Your task to perform on an android device: Open Google Image 0: 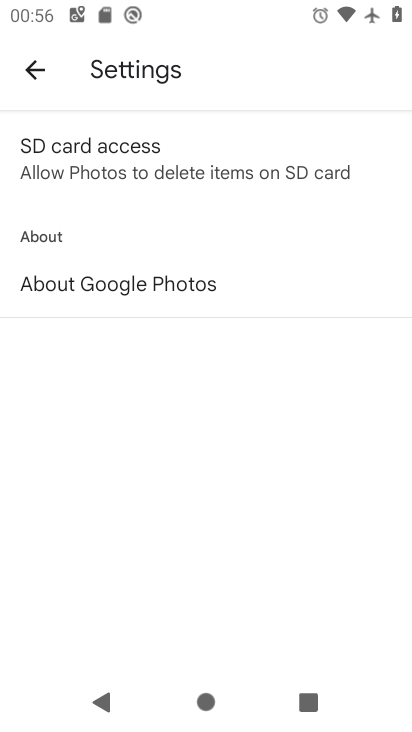
Step 0: press home button
Your task to perform on an android device: Open Google Image 1: 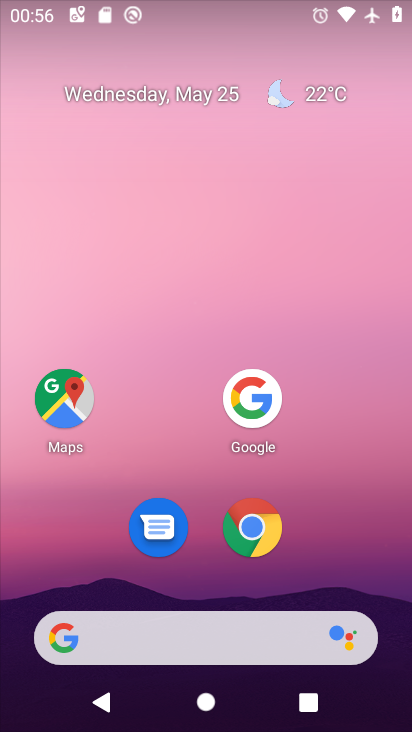
Step 1: click (54, 394)
Your task to perform on an android device: Open Google Image 2: 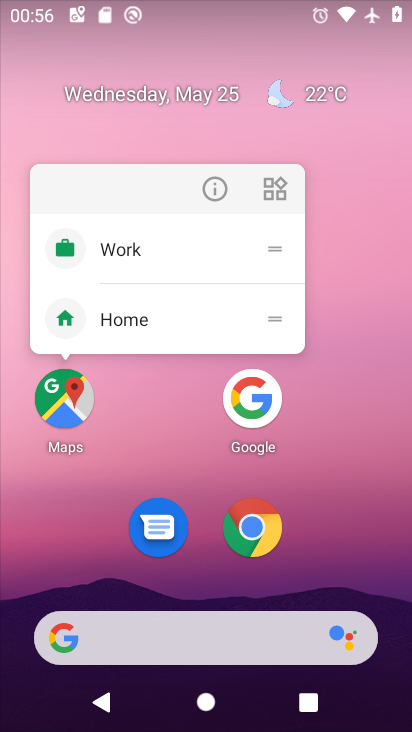
Step 2: click (268, 399)
Your task to perform on an android device: Open Google Image 3: 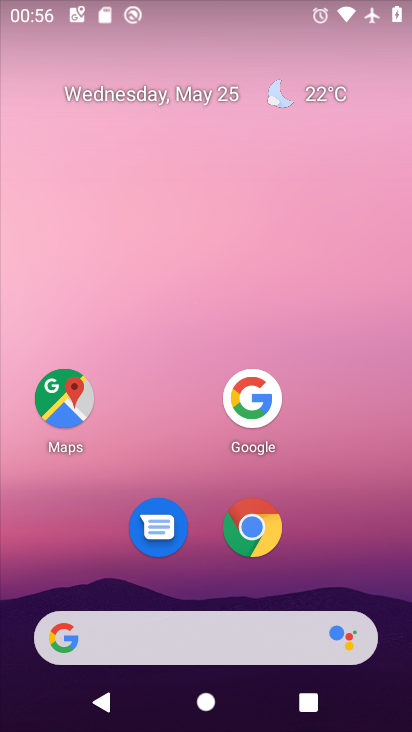
Step 3: click (262, 399)
Your task to perform on an android device: Open Google Image 4: 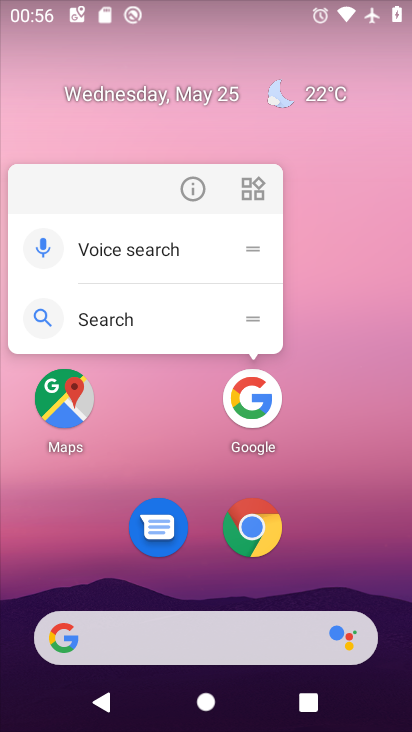
Step 4: click (259, 403)
Your task to perform on an android device: Open Google Image 5: 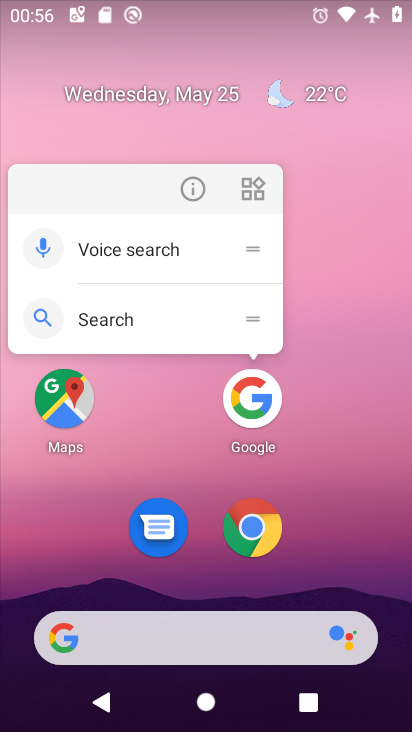
Step 5: click (259, 402)
Your task to perform on an android device: Open Google Image 6: 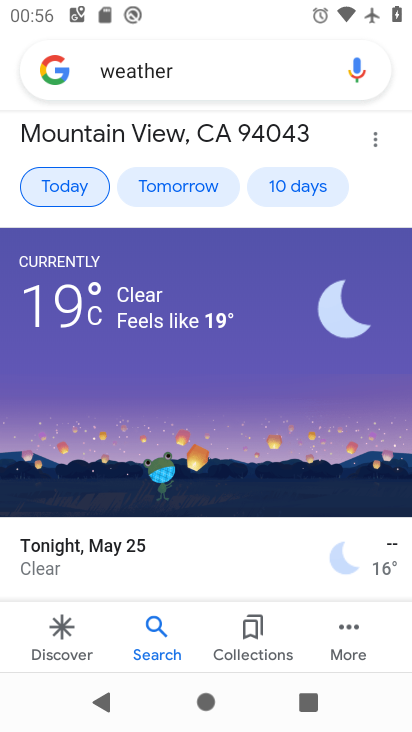
Step 6: click (58, 629)
Your task to perform on an android device: Open Google Image 7: 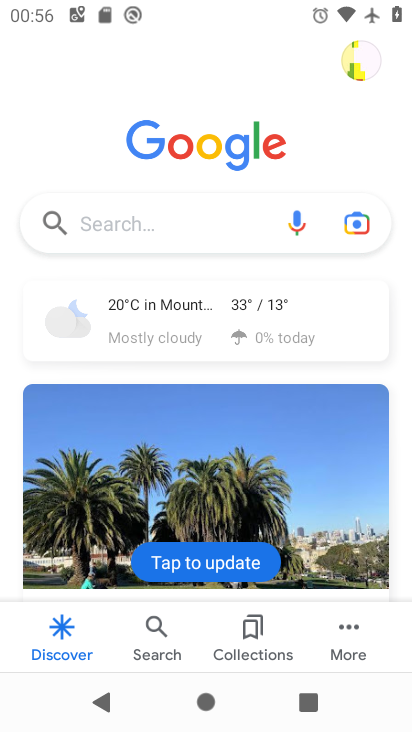
Step 7: task complete